Your task to perform on an android device: Open sound settings Image 0: 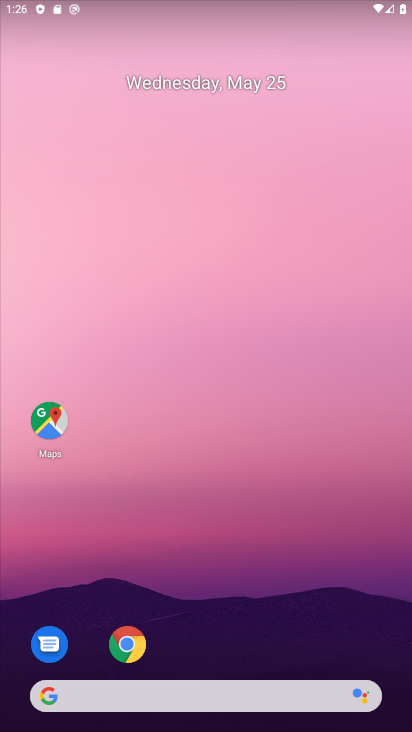
Step 0: drag from (224, 619) to (125, 18)
Your task to perform on an android device: Open sound settings Image 1: 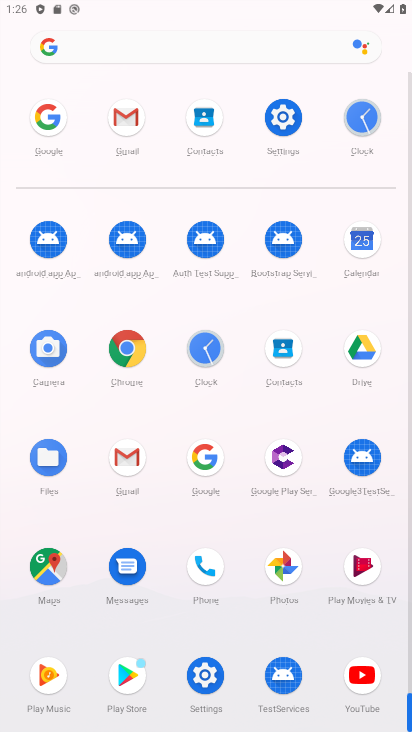
Step 1: click (214, 683)
Your task to perform on an android device: Open sound settings Image 2: 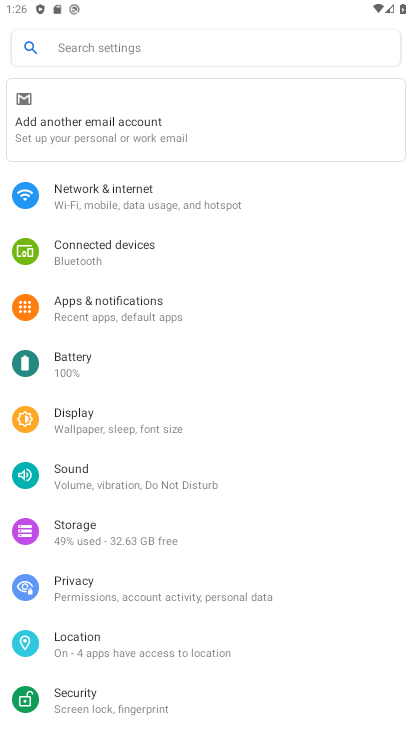
Step 2: click (74, 477)
Your task to perform on an android device: Open sound settings Image 3: 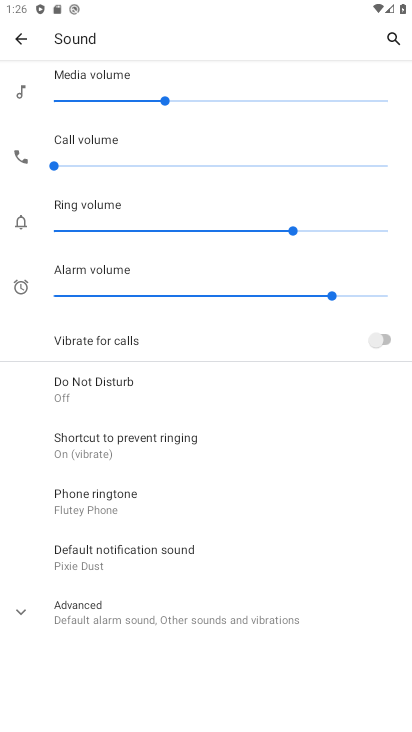
Step 3: task complete